Your task to perform on an android device: change keyboard looks Image 0: 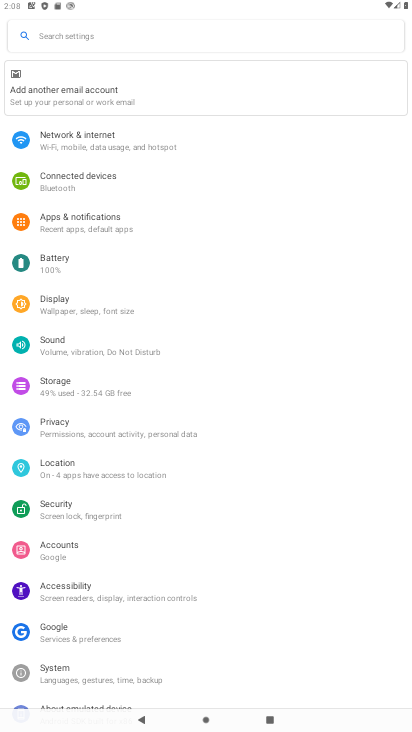
Step 0: task complete